Your task to perform on an android device: turn off smart reply in the gmail app Image 0: 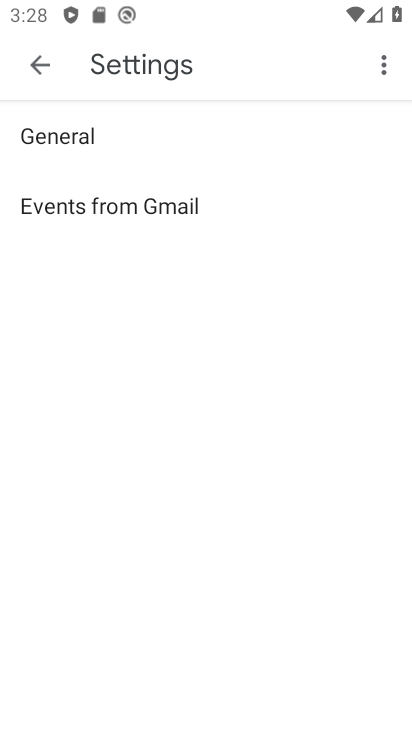
Step 0: press home button
Your task to perform on an android device: turn off smart reply in the gmail app Image 1: 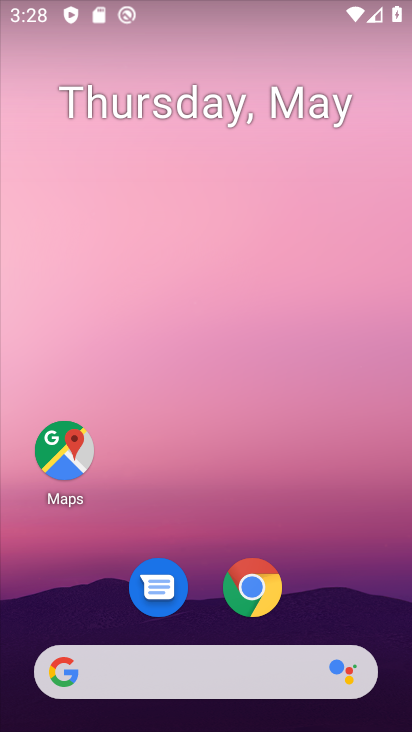
Step 1: drag from (376, 611) to (377, 231)
Your task to perform on an android device: turn off smart reply in the gmail app Image 2: 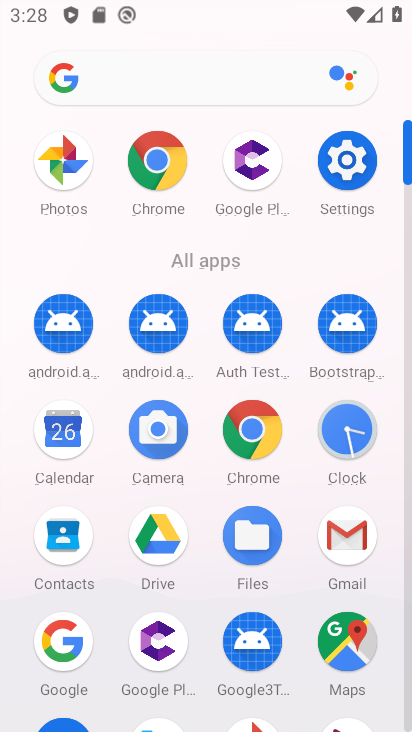
Step 2: click (351, 556)
Your task to perform on an android device: turn off smart reply in the gmail app Image 3: 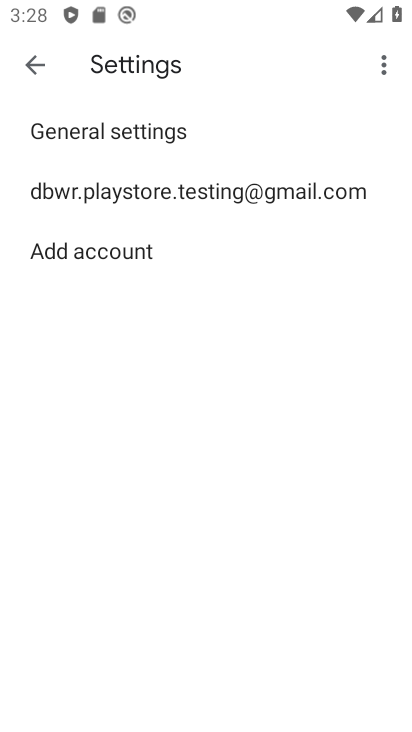
Step 3: click (229, 197)
Your task to perform on an android device: turn off smart reply in the gmail app Image 4: 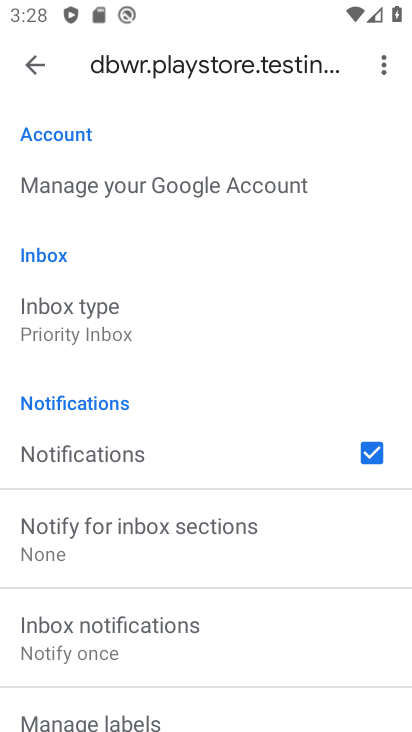
Step 4: drag from (284, 544) to (302, 428)
Your task to perform on an android device: turn off smart reply in the gmail app Image 5: 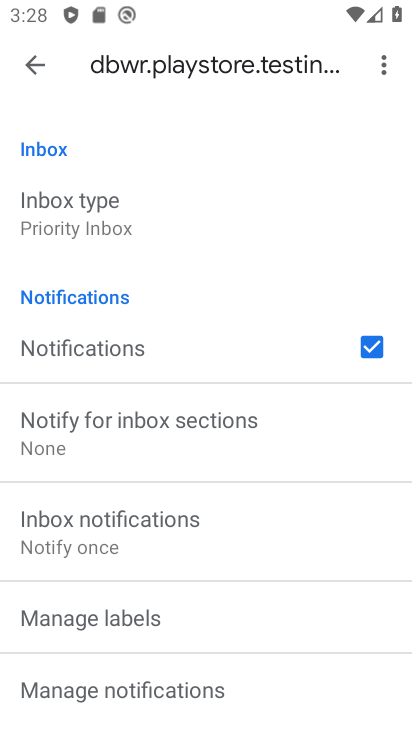
Step 5: drag from (305, 548) to (300, 425)
Your task to perform on an android device: turn off smart reply in the gmail app Image 6: 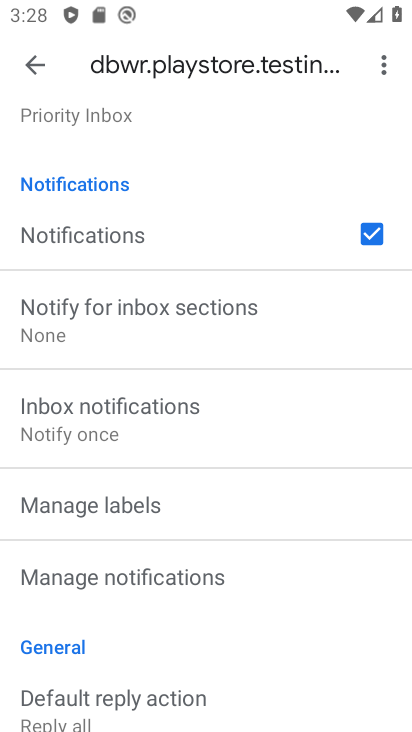
Step 6: drag from (312, 581) to (331, 409)
Your task to perform on an android device: turn off smart reply in the gmail app Image 7: 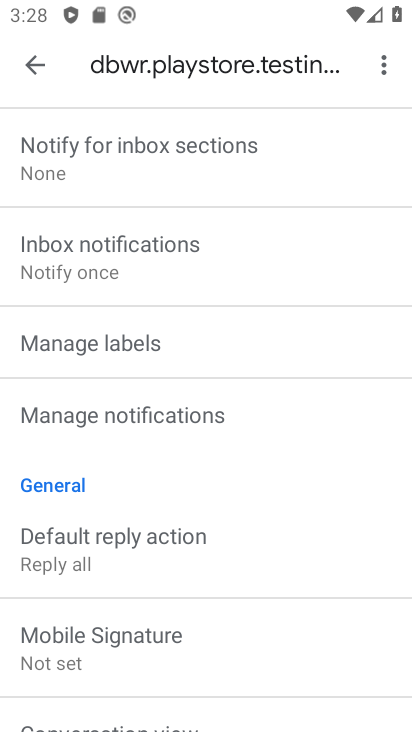
Step 7: drag from (329, 573) to (346, 457)
Your task to perform on an android device: turn off smart reply in the gmail app Image 8: 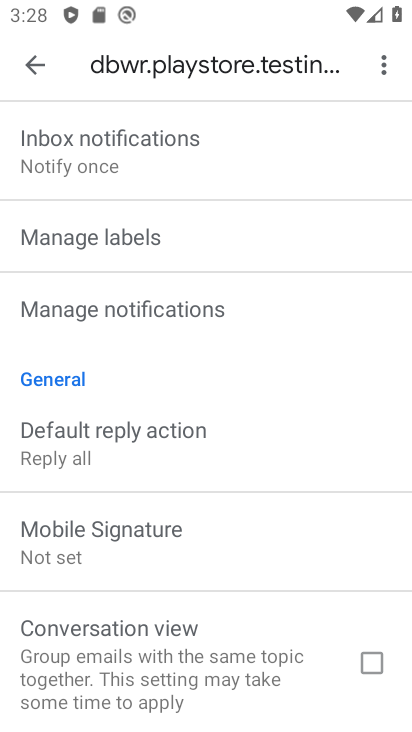
Step 8: drag from (324, 603) to (313, 462)
Your task to perform on an android device: turn off smart reply in the gmail app Image 9: 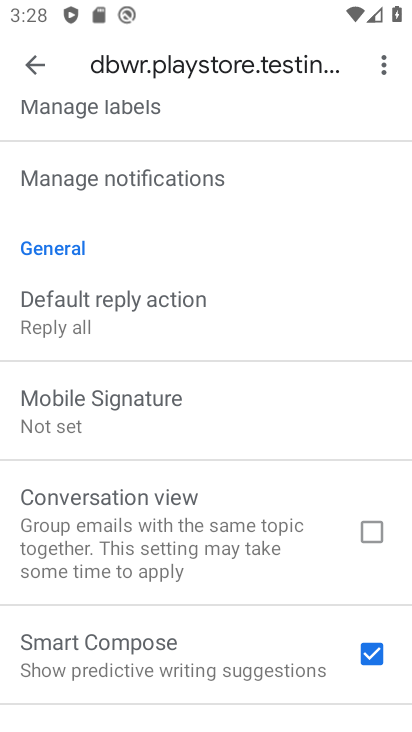
Step 9: drag from (281, 633) to (277, 497)
Your task to perform on an android device: turn off smart reply in the gmail app Image 10: 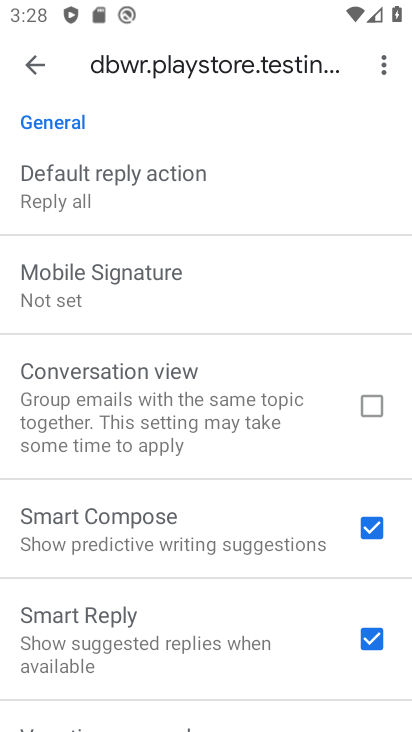
Step 10: drag from (269, 662) to (293, 508)
Your task to perform on an android device: turn off smart reply in the gmail app Image 11: 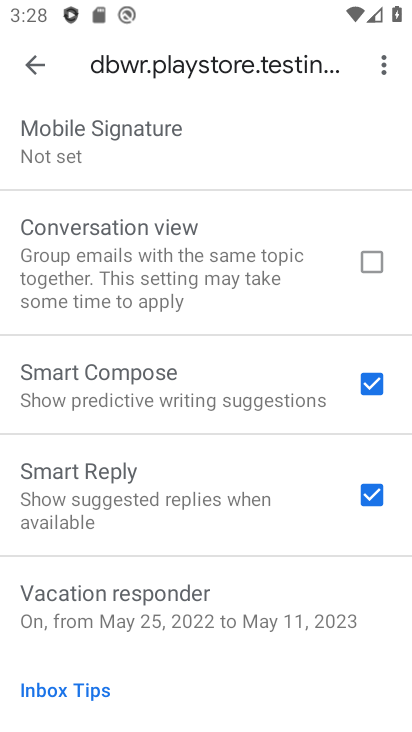
Step 11: click (360, 503)
Your task to perform on an android device: turn off smart reply in the gmail app Image 12: 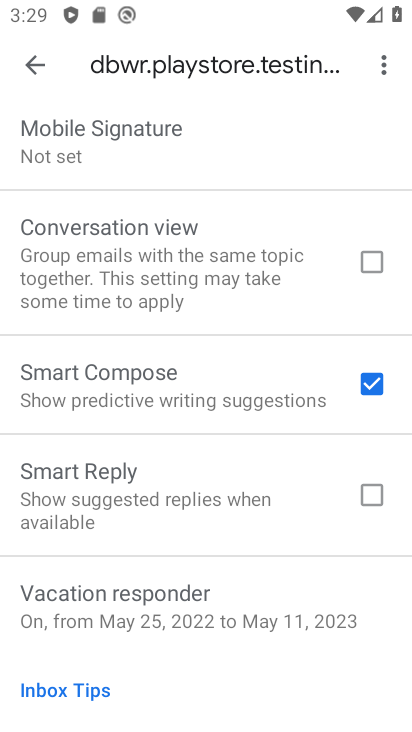
Step 12: task complete